Your task to perform on an android device: toggle notifications settings in the gmail app Image 0: 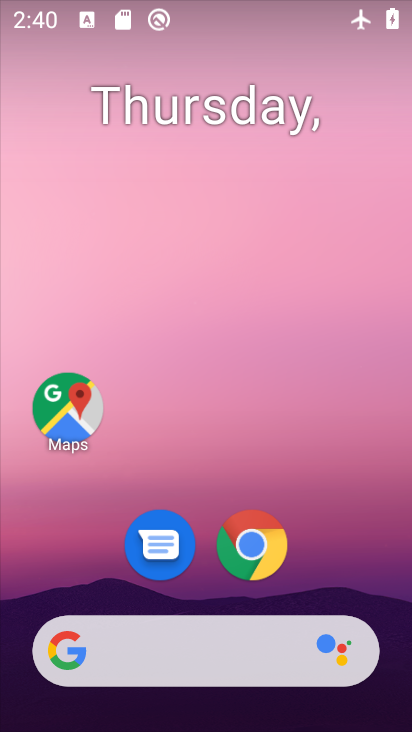
Step 0: drag from (140, 690) to (147, 61)
Your task to perform on an android device: toggle notifications settings in the gmail app Image 1: 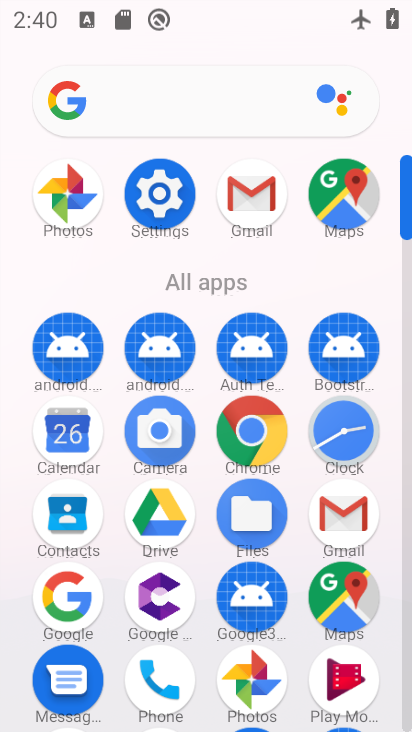
Step 1: click (262, 201)
Your task to perform on an android device: toggle notifications settings in the gmail app Image 2: 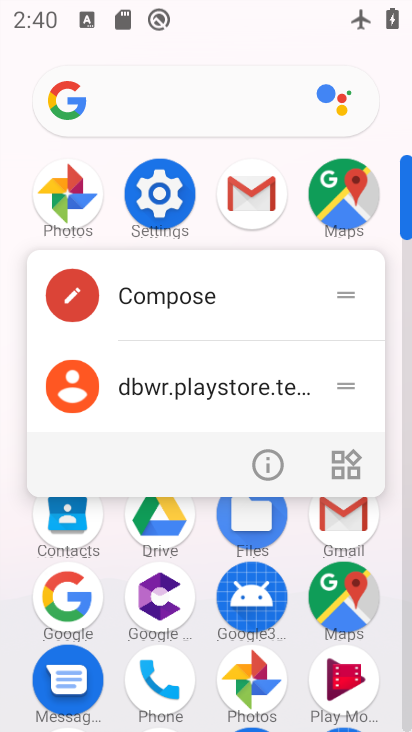
Step 2: click (269, 458)
Your task to perform on an android device: toggle notifications settings in the gmail app Image 3: 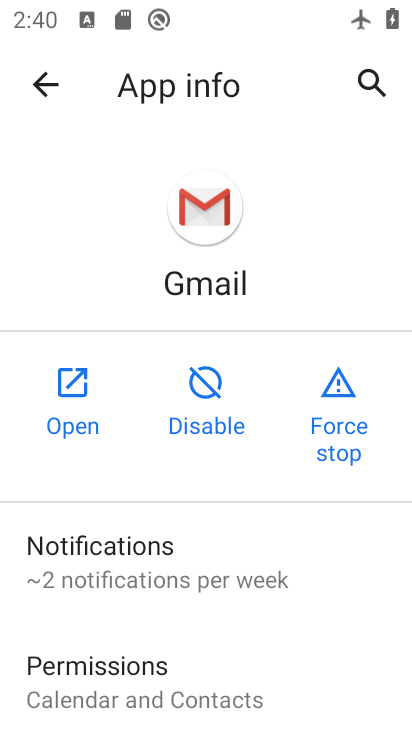
Step 3: click (226, 557)
Your task to perform on an android device: toggle notifications settings in the gmail app Image 4: 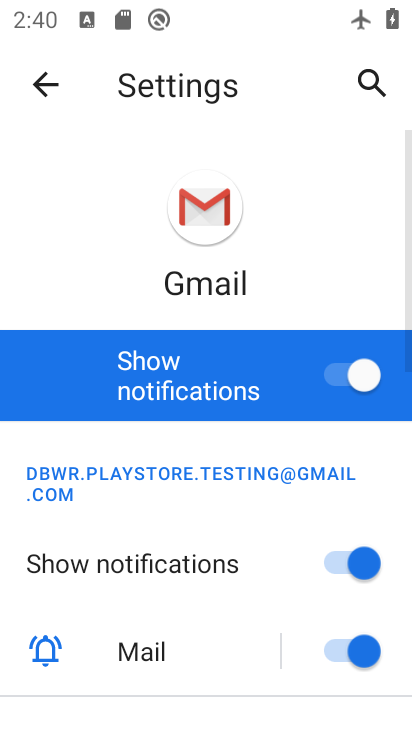
Step 4: click (381, 380)
Your task to perform on an android device: toggle notifications settings in the gmail app Image 5: 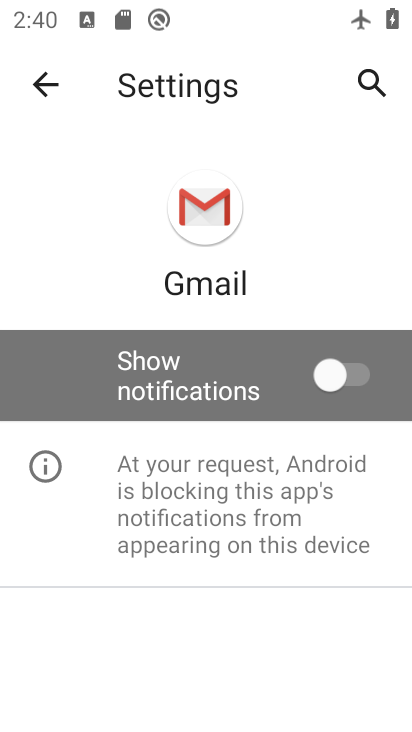
Step 5: task complete